Your task to perform on an android device: Go to internet settings Image 0: 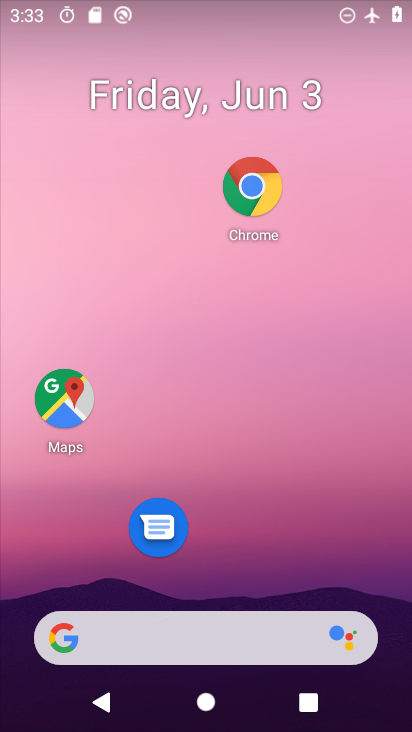
Step 0: drag from (220, 489) to (195, 261)
Your task to perform on an android device: Go to internet settings Image 1: 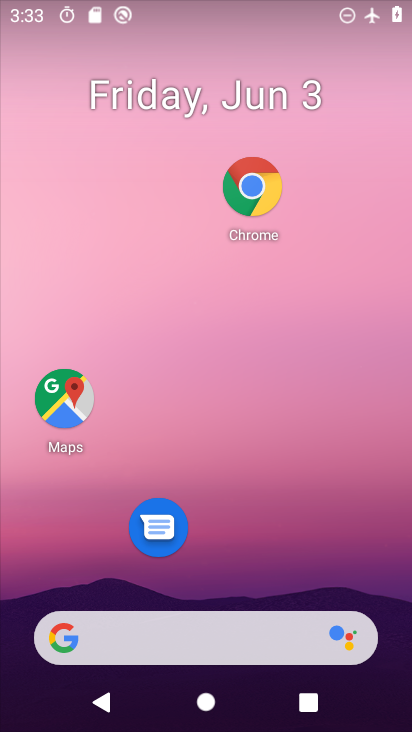
Step 1: drag from (216, 503) to (235, 223)
Your task to perform on an android device: Go to internet settings Image 2: 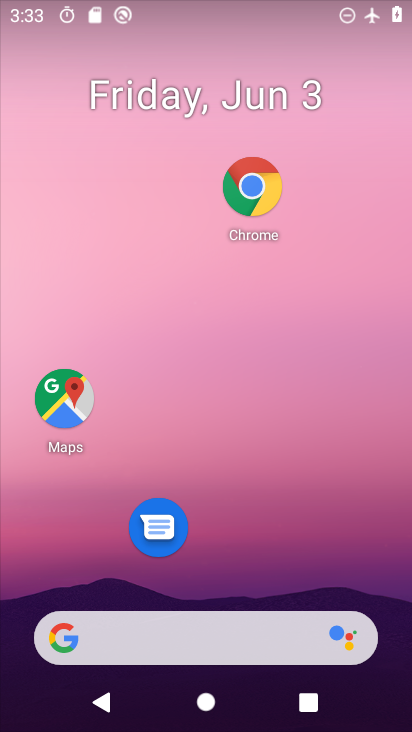
Step 2: drag from (197, 580) to (216, 160)
Your task to perform on an android device: Go to internet settings Image 3: 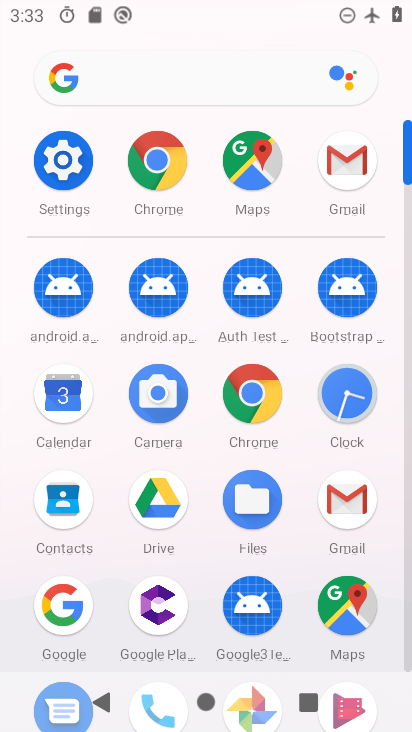
Step 3: click (65, 146)
Your task to perform on an android device: Go to internet settings Image 4: 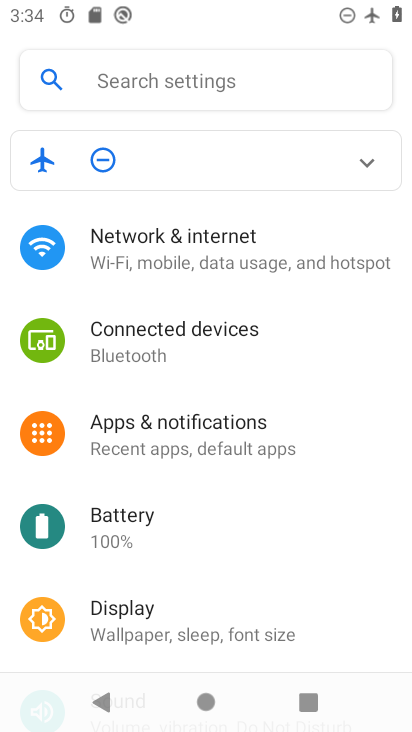
Step 4: click (214, 237)
Your task to perform on an android device: Go to internet settings Image 5: 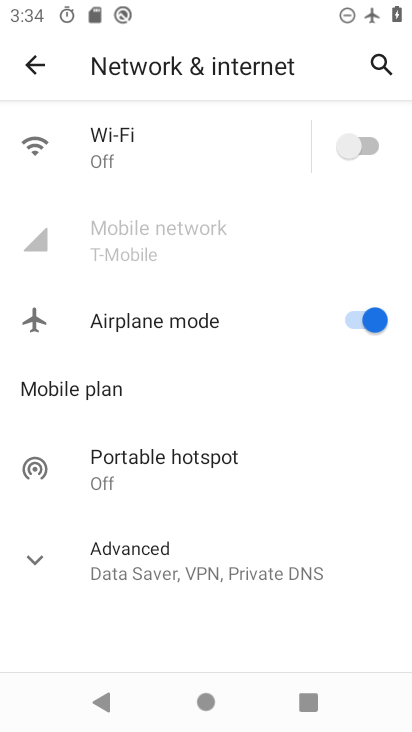
Step 5: task complete